Your task to perform on an android device: turn on wifi Image 0: 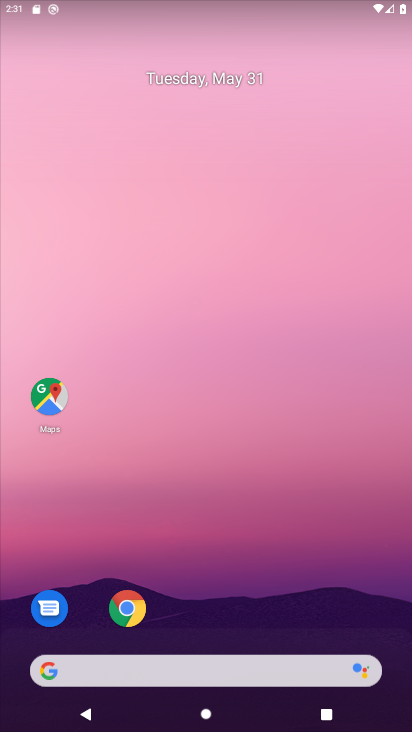
Step 0: drag from (153, 636) to (264, 176)
Your task to perform on an android device: turn on wifi Image 1: 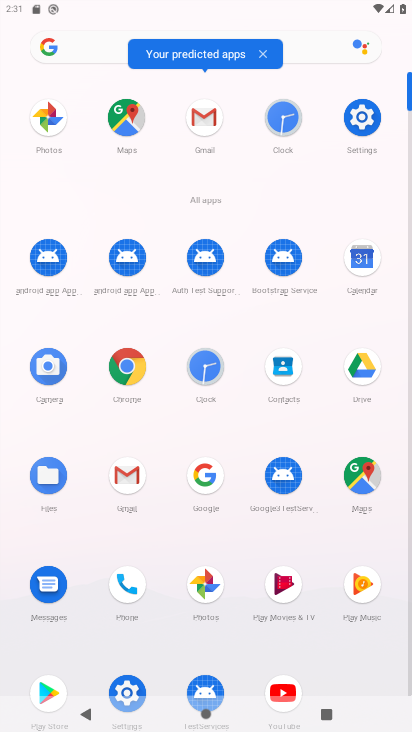
Step 1: drag from (166, 586) to (222, 397)
Your task to perform on an android device: turn on wifi Image 2: 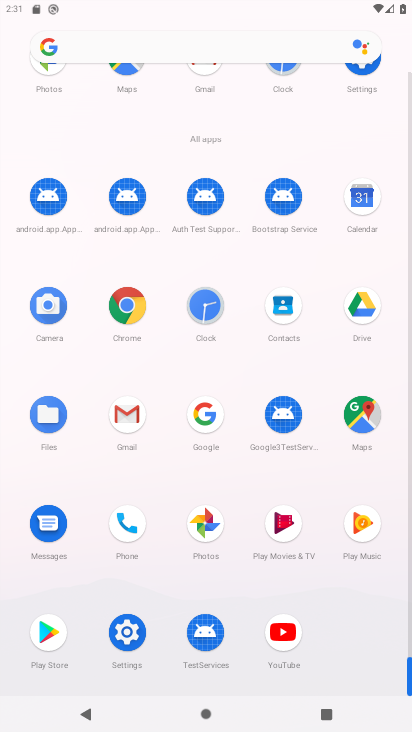
Step 2: click (130, 636)
Your task to perform on an android device: turn on wifi Image 3: 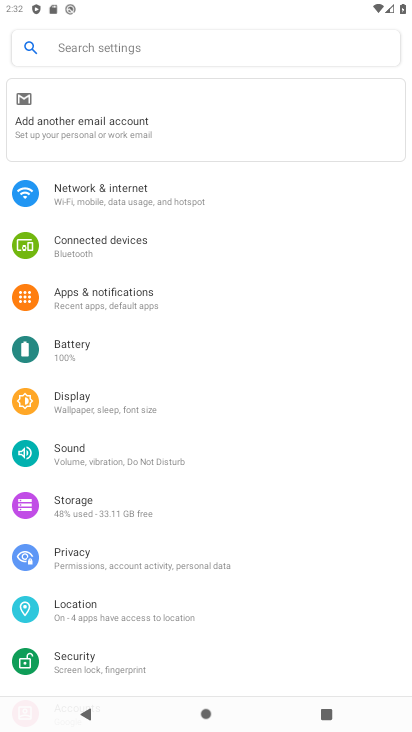
Step 3: click (217, 198)
Your task to perform on an android device: turn on wifi Image 4: 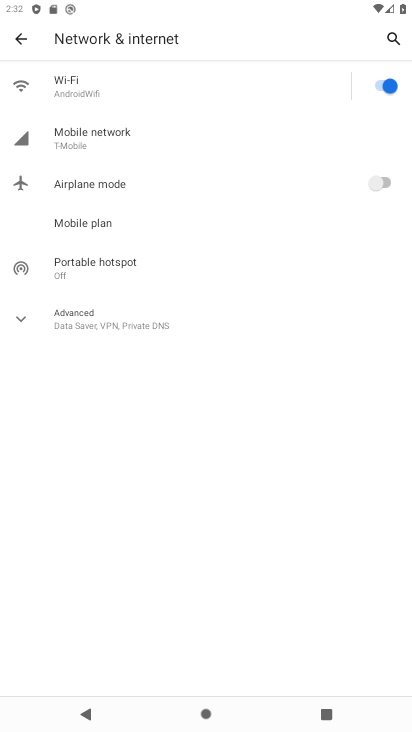
Step 4: task complete